Your task to perform on an android device: allow cookies in the chrome app Image 0: 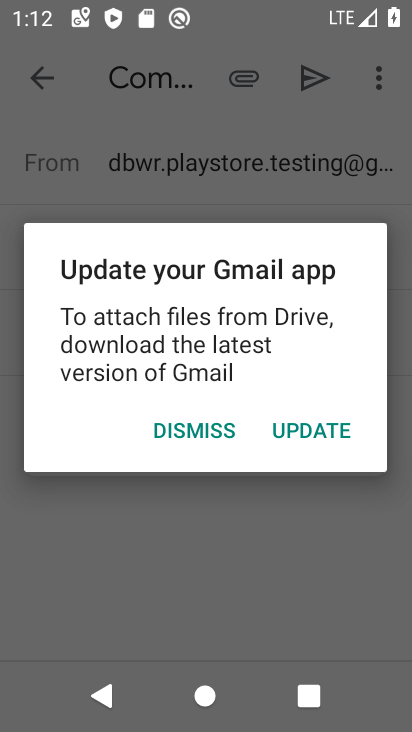
Step 0: press back button
Your task to perform on an android device: allow cookies in the chrome app Image 1: 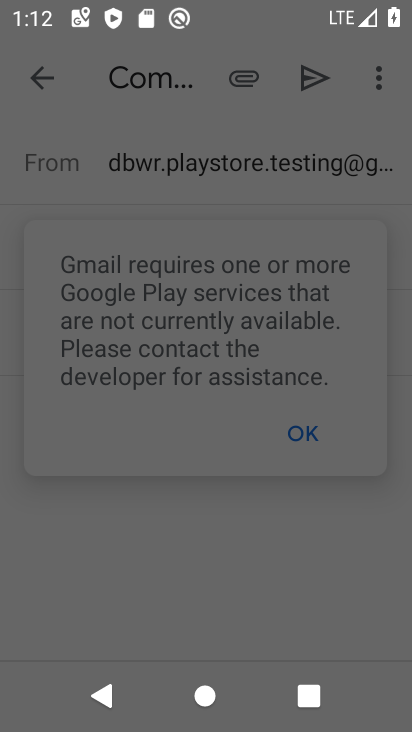
Step 1: press home button
Your task to perform on an android device: allow cookies in the chrome app Image 2: 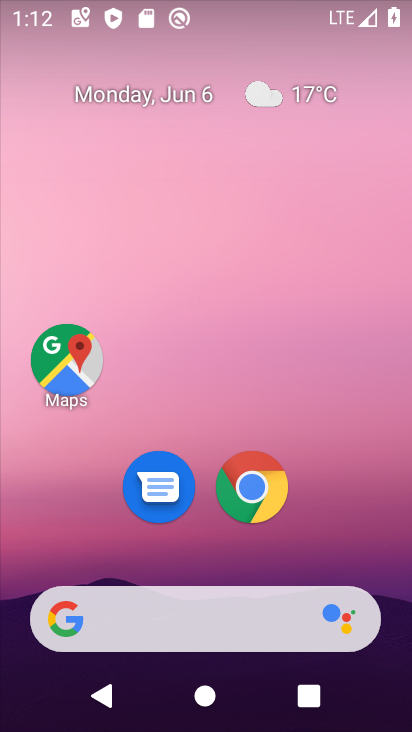
Step 2: click (269, 507)
Your task to perform on an android device: allow cookies in the chrome app Image 3: 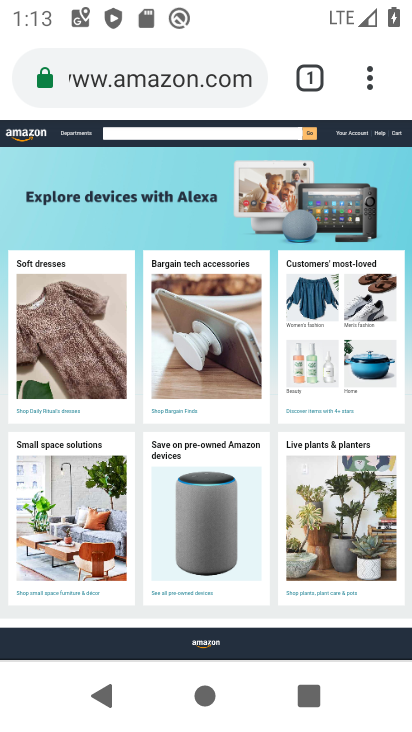
Step 3: click (378, 74)
Your task to perform on an android device: allow cookies in the chrome app Image 4: 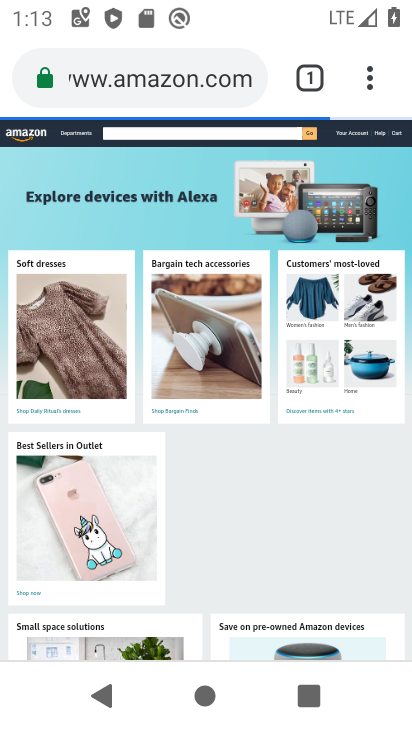
Step 4: click (378, 74)
Your task to perform on an android device: allow cookies in the chrome app Image 5: 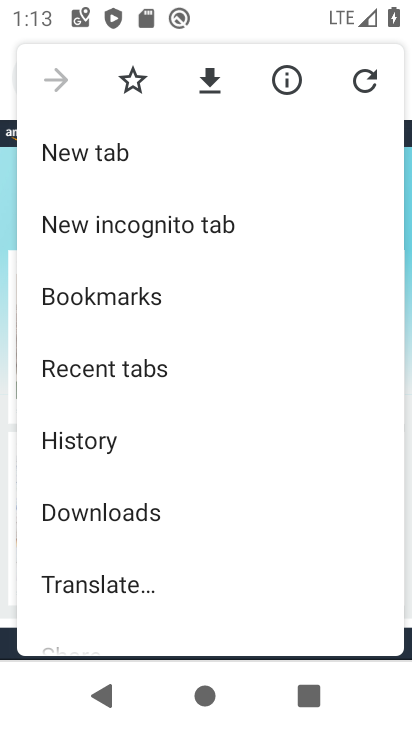
Step 5: drag from (126, 570) to (213, 41)
Your task to perform on an android device: allow cookies in the chrome app Image 6: 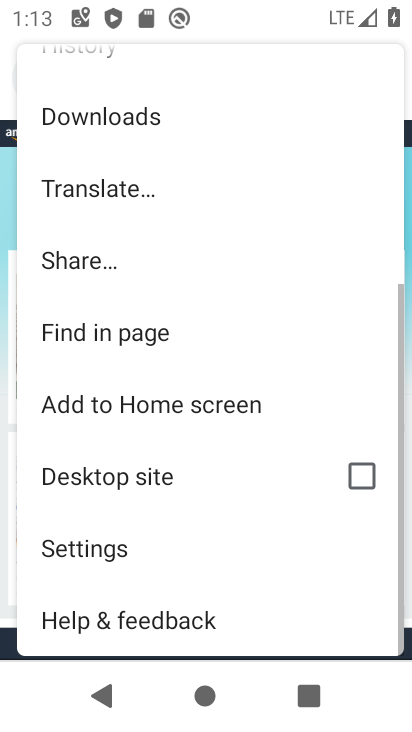
Step 6: click (104, 550)
Your task to perform on an android device: allow cookies in the chrome app Image 7: 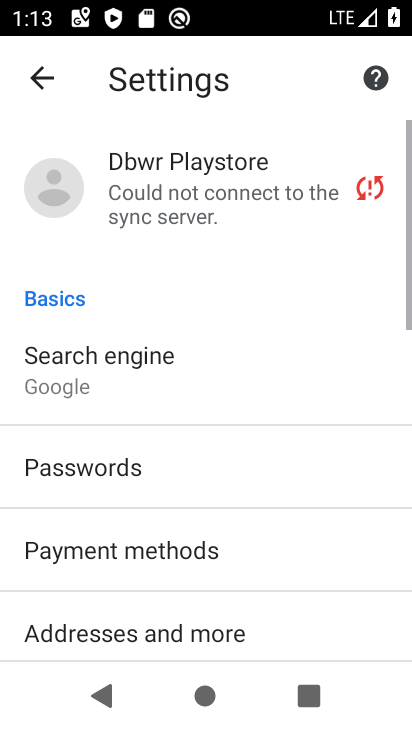
Step 7: drag from (153, 577) to (211, 6)
Your task to perform on an android device: allow cookies in the chrome app Image 8: 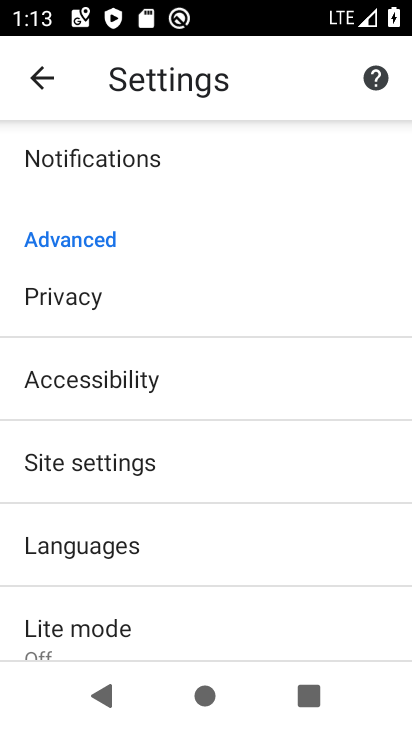
Step 8: click (89, 477)
Your task to perform on an android device: allow cookies in the chrome app Image 9: 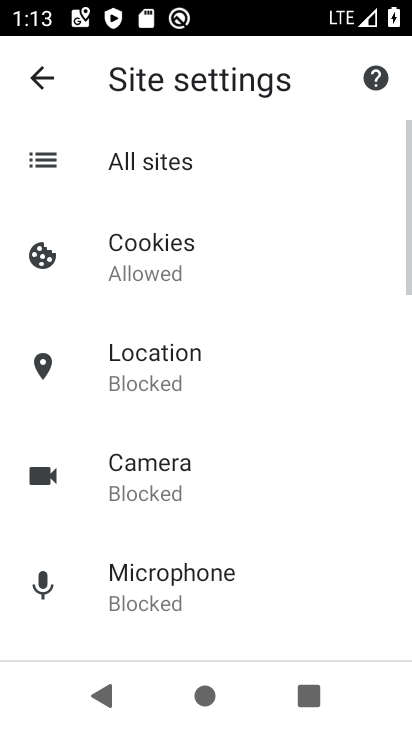
Step 9: click (153, 260)
Your task to perform on an android device: allow cookies in the chrome app Image 10: 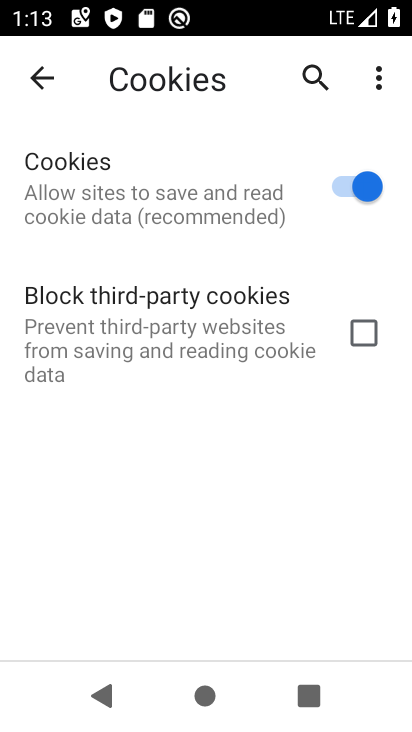
Step 10: task complete